Your task to perform on an android device: Open Wikipedia Image 0: 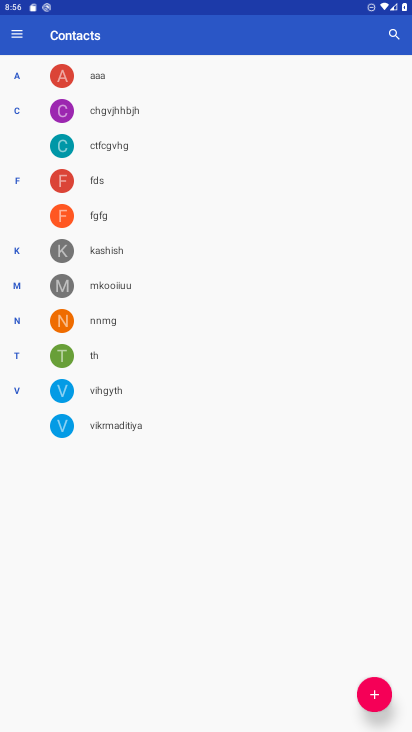
Step 0: press home button
Your task to perform on an android device: Open Wikipedia Image 1: 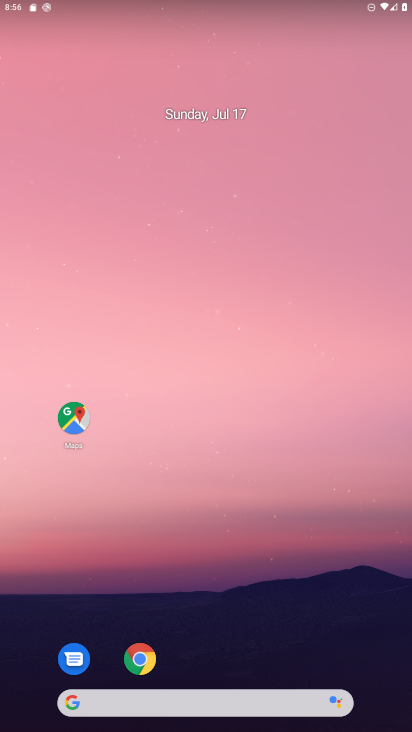
Step 1: click (180, 698)
Your task to perform on an android device: Open Wikipedia Image 2: 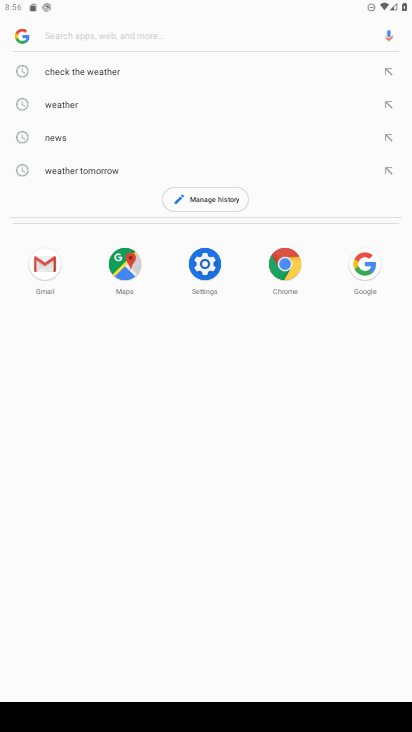
Step 2: type "Wikipedia"
Your task to perform on an android device: Open Wikipedia Image 3: 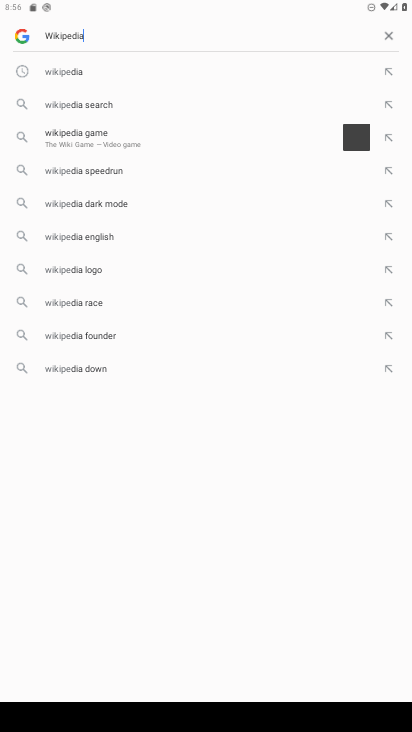
Step 3: press enter
Your task to perform on an android device: Open Wikipedia Image 4: 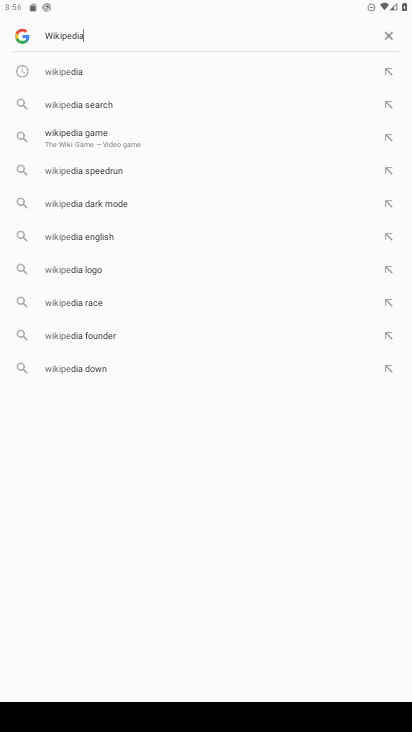
Step 4: type ""
Your task to perform on an android device: Open Wikipedia Image 5: 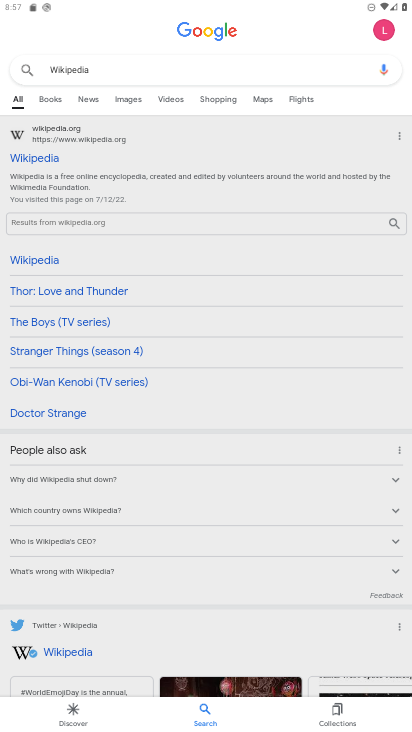
Step 5: task complete